Your task to perform on an android device: Open network settings Image 0: 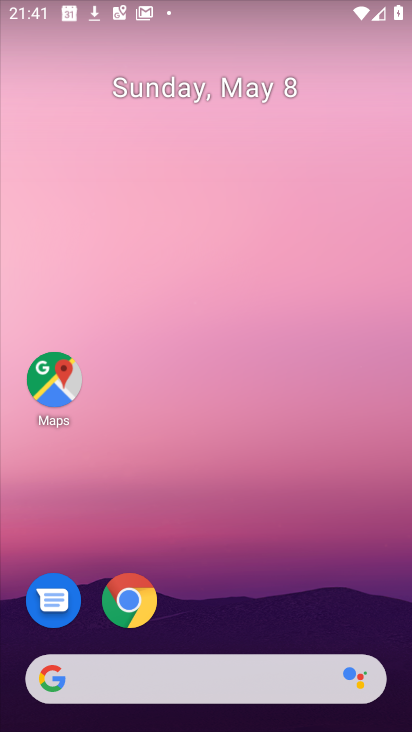
Step 0: drag from (214, 697) to (304, 332)
Your task to perform on an android device: Open network settings Image 1: 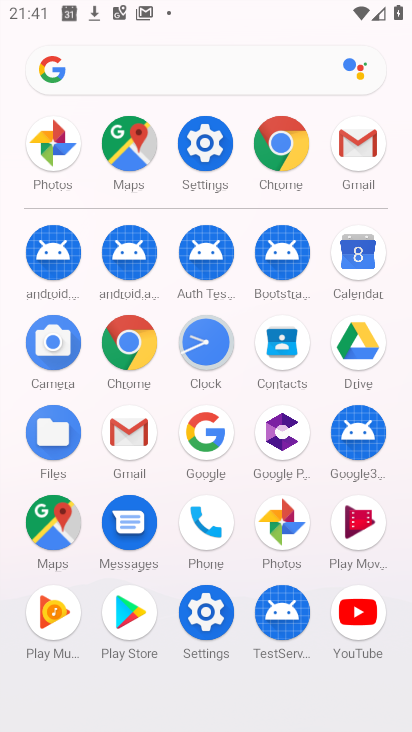
Step 1: click (196, 152)
Your task to perform on an android device: Open network settings Image 2: 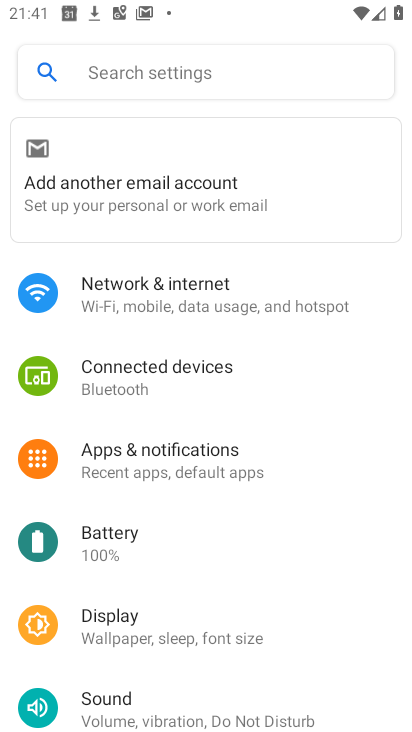
Step 2: click (164, 305)
Your task to perform on an android device: Open network settings Image 3: 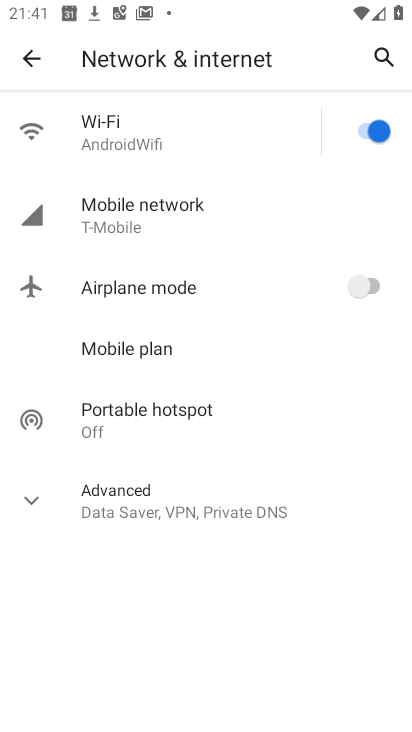
Step 3: task complete